Your task to perform on an android device: Show me the alarms in the clock app Image 0: 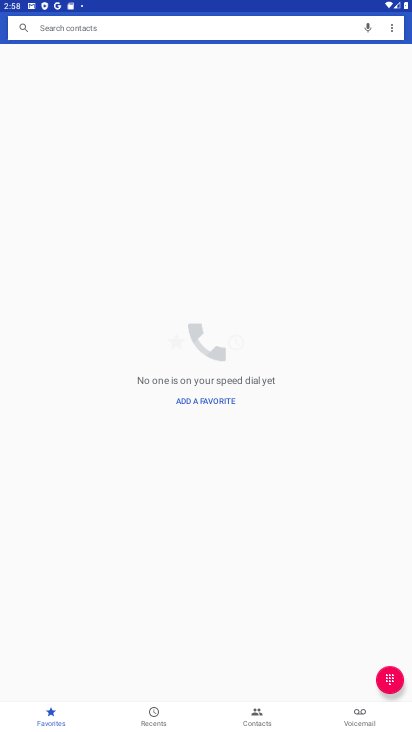
Step 0: press home button
Your task to perform on an android device: Show me the alarms in the clock app Image 1: 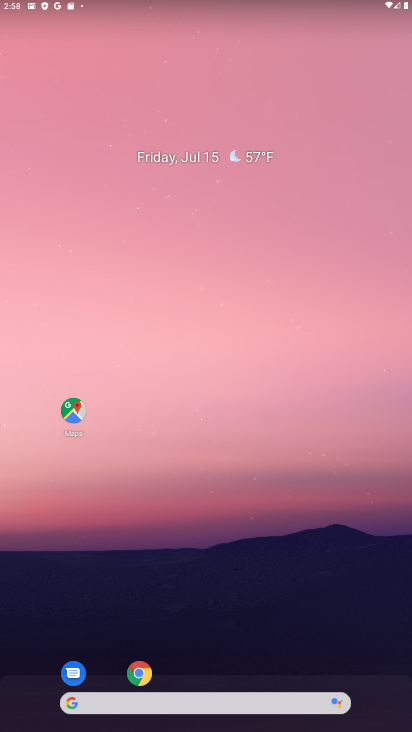
Step 1: drag from (212, 639) to (321, 6)
Your task to perform on an android device: Show me the alarms in the clock app Image 2: 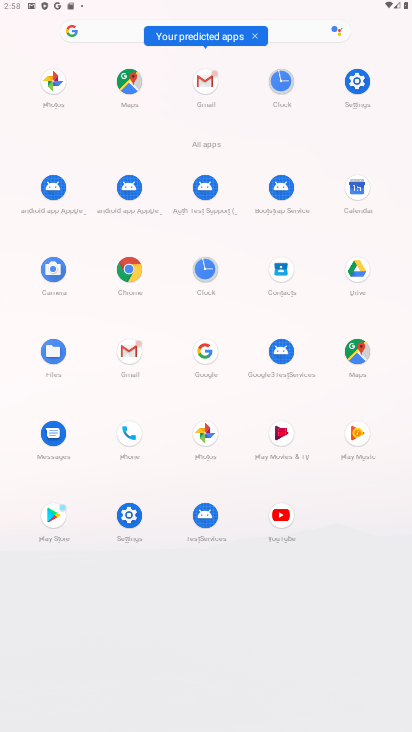
Step 2: click (207, 286)
Your task to perform on an android device: Show me the alarms in the clock app Image 3: 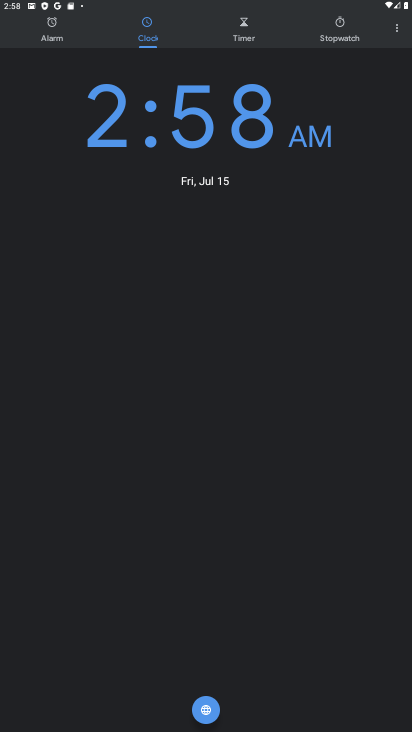
Step 3: click (45, 37)
Your task to perform on an android device: Show me the alarms in the clock app Image 4: 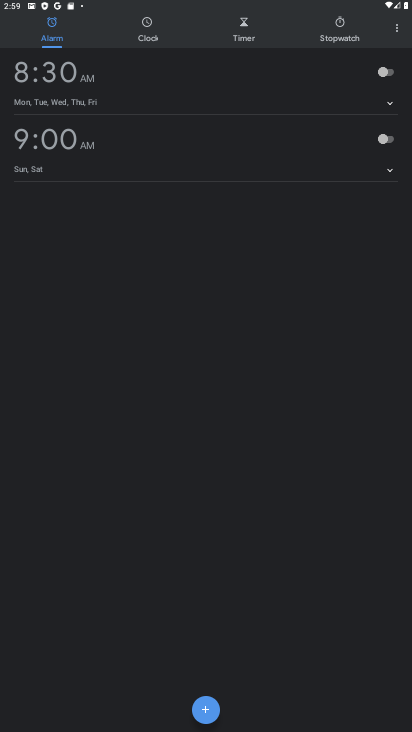
Step 4: task complete